Your task to perform on an android device: choose inbox layout in the gmail app Image 0: 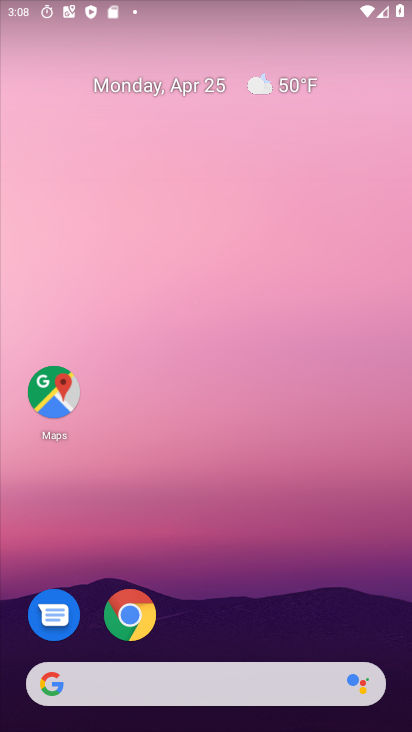
Step 0: drag from (193, 724) to (212, 102)
Your task to perform on an android device: choose inbox layout in the gmail app Image 1: 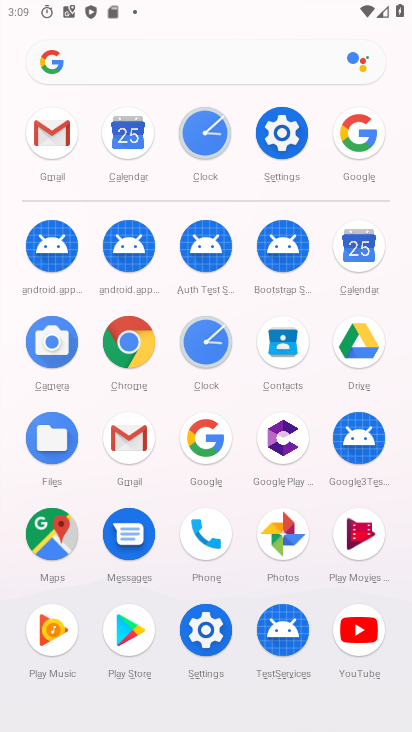
Step 1: click (126, 438)
Your task to perform on an android device: choose inbox layout in the gmail app Image 2: 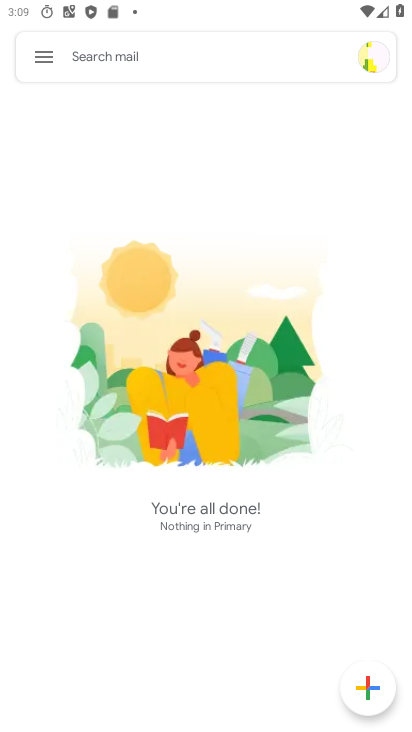
Step 2: click (45, 51)
Your task to perform on an android device: choose inbox layout in the gmail app Image 3: 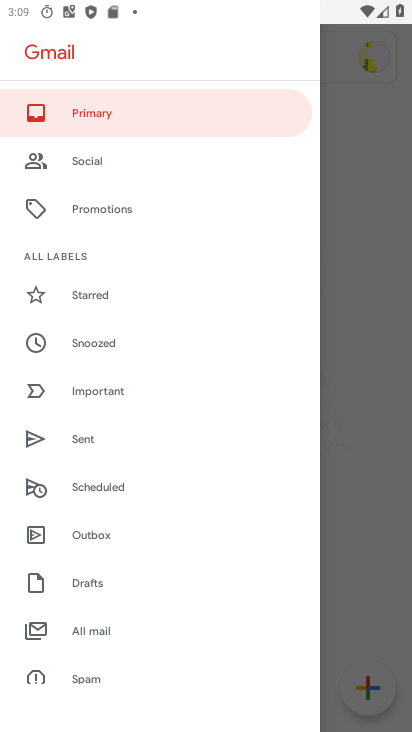
Step 3: drag from (113, 650) to (166, 246)
Your task to perform on an android device: choose inbox layout in the gmail app Image 4: 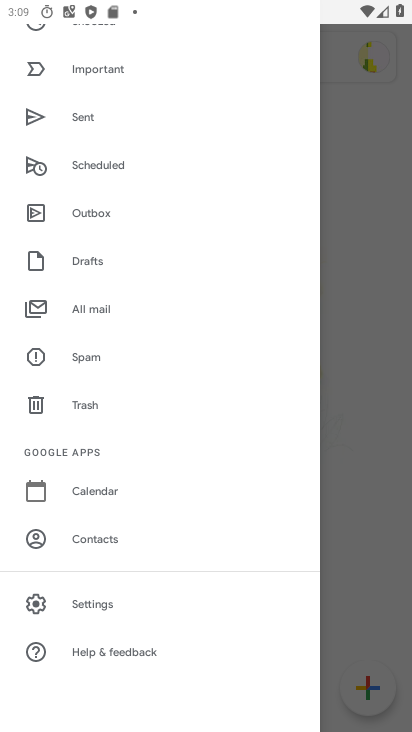
Step 4: click (98, 602)
Your task to perform on an android device: choose inbox layout in the gmail app Image 5: 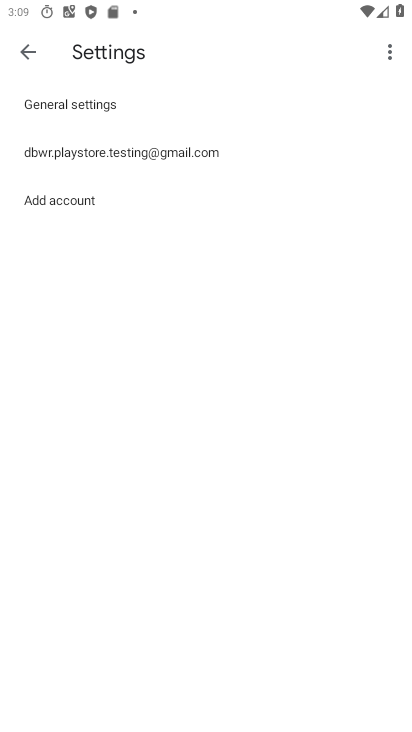
Step 5: click (168, 149)
Your task to perform on an android device: choose inbox layout in the gmail app Image 6: 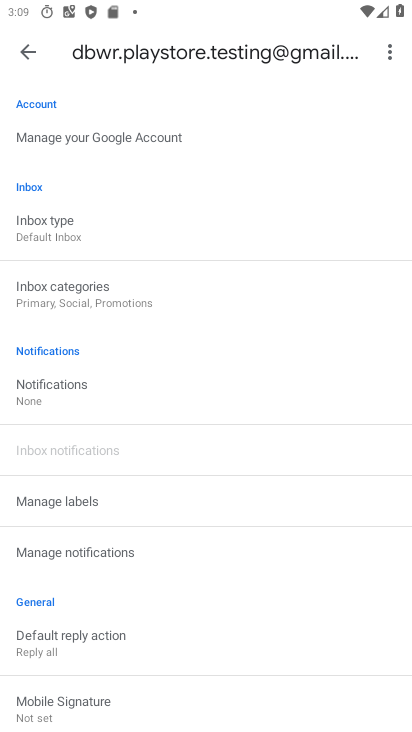
Step 6: click (48, 228)
Your task to perform on an android device: choose inbox layout in the gmail app Image 7: 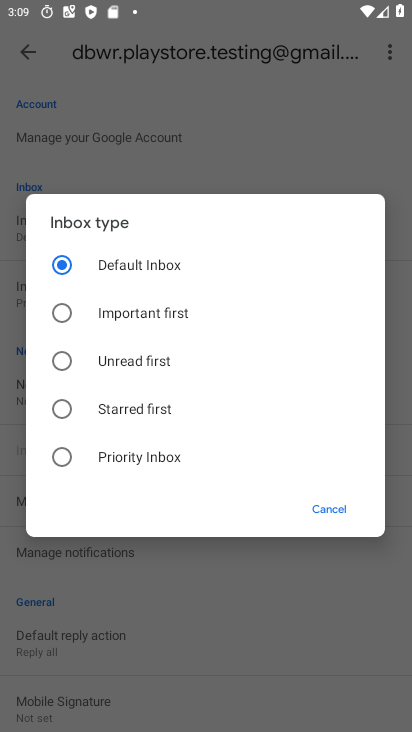
Step 7: click (61, 451)
Your task to perform on an android device: choose inbox layout in the gmail app Image 8: 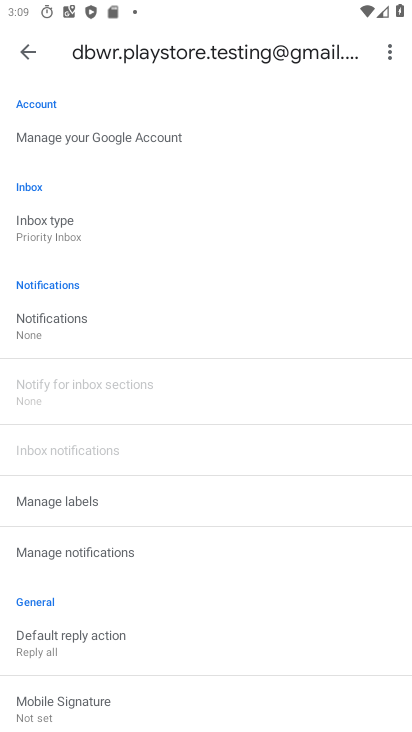
Step 8: task complete